Your task to perform on an android device: choose inbox layout in the gmail app Image 0: 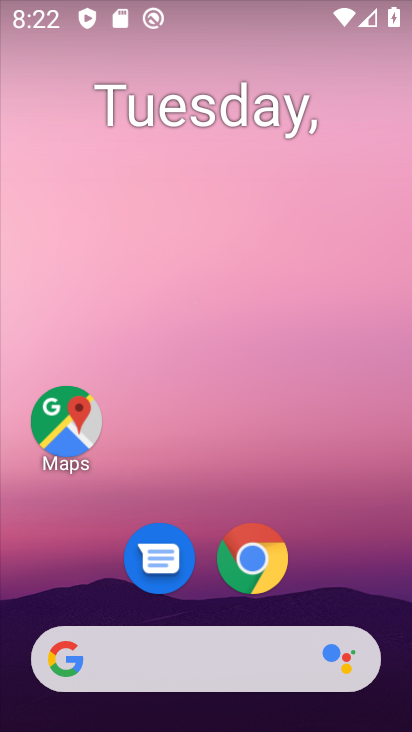
Step 0: drag from (215, 598) to (234, 187)
Your task to perform on an android device: choose inbox layout in the gmail app Image 1: 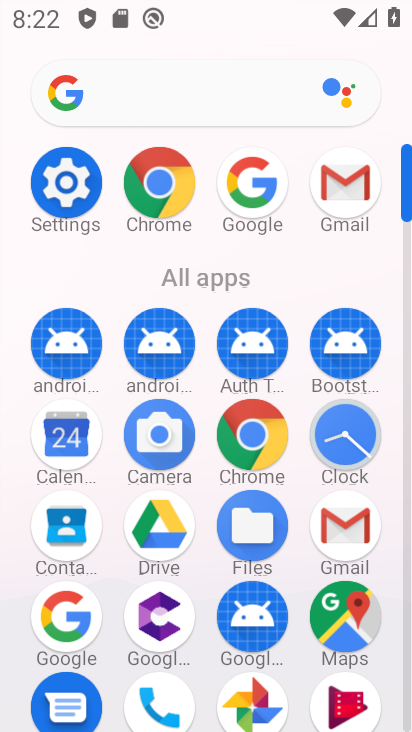
Step 1: click (329, 544)
Your task to perform on an android device: choose inbox layout in the gmail app Image 2: 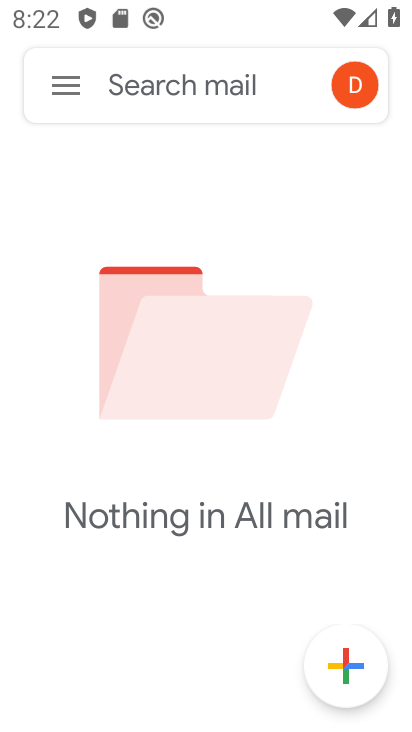
Step 2: click (59, 83)
Your task to perform on an android device: choose inbox layout in the gmail app Image 3: 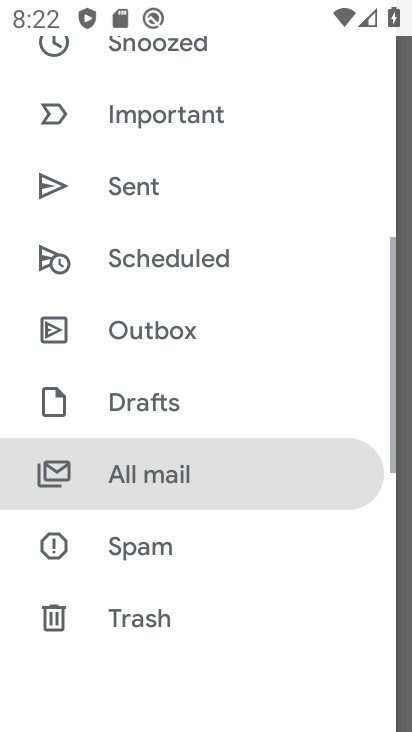
Step 3: drag from (183, 564) to (214, 178)
Your task to perform on an android device: choose inbox layout in the gmail app Image 4: 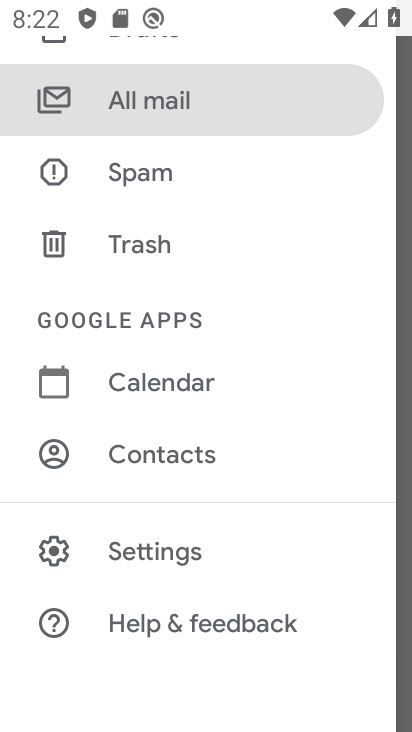
Step 4: click (164, 547)
Your task to perform on an android device: choose inbox layout in the gmail app Image 5: 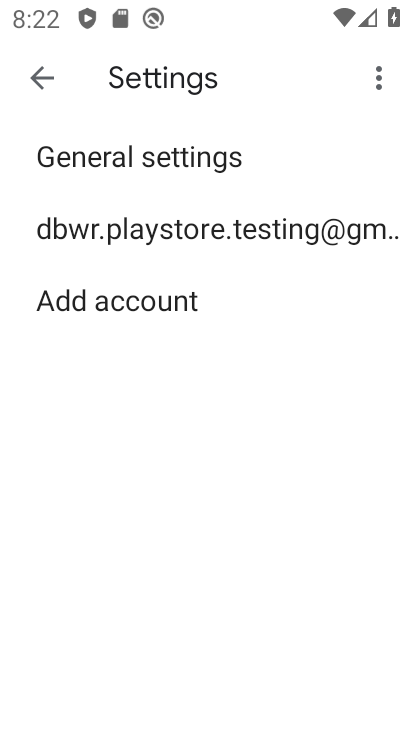
Step 5: click (160, 233)
Your task to perform on an android device: choose inbox layout in the gmail app Image 6: 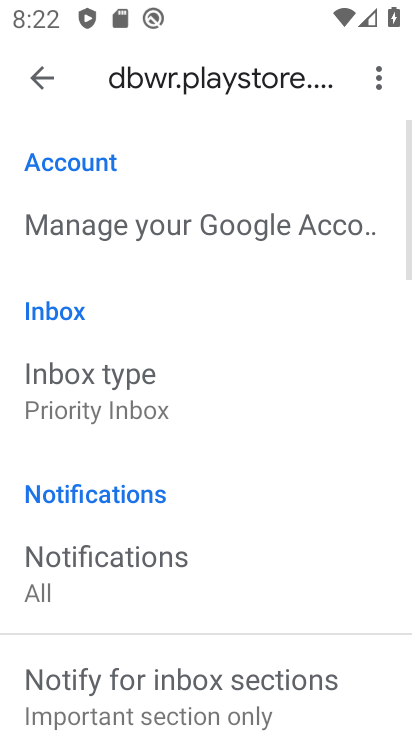
Step 6: click (163, 416)
Your task to perform on an android device: choose inbox layout in the gmail app Image 7: 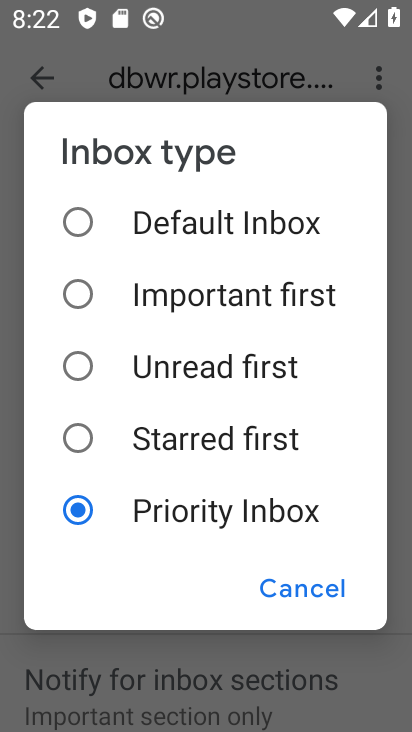
Step 7: click (162, 234)
Your task to perform on an android device: choose inbox layout in the gmail app Image 8: 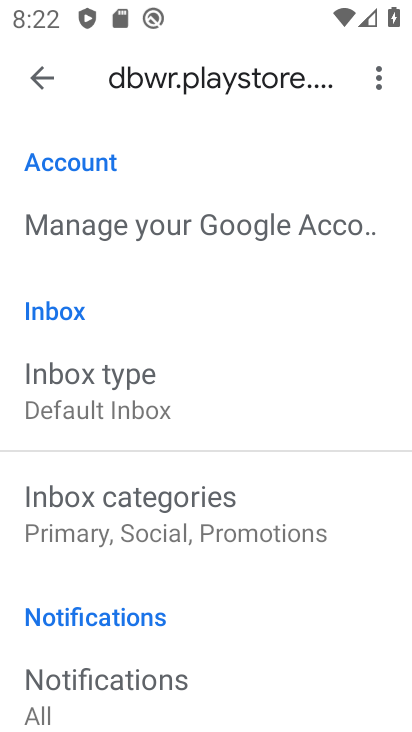
Step 8: task complete